Your task to perform on an android device: turn on wifi Image 0: 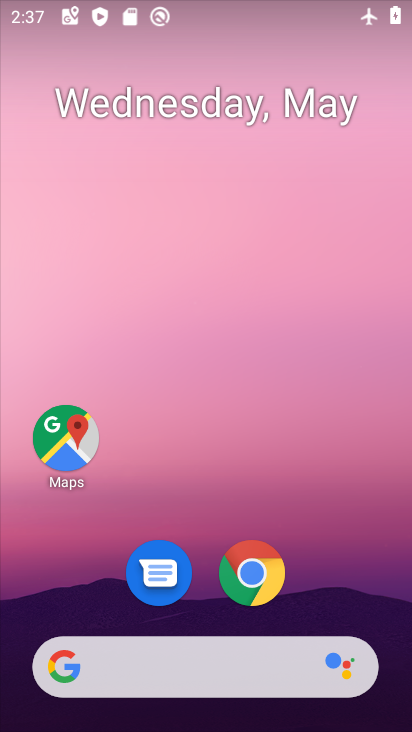
Step 0: drag from (303, 576) to (311, 60)
Your task to perform on an android device: turn on wifi Image 1: 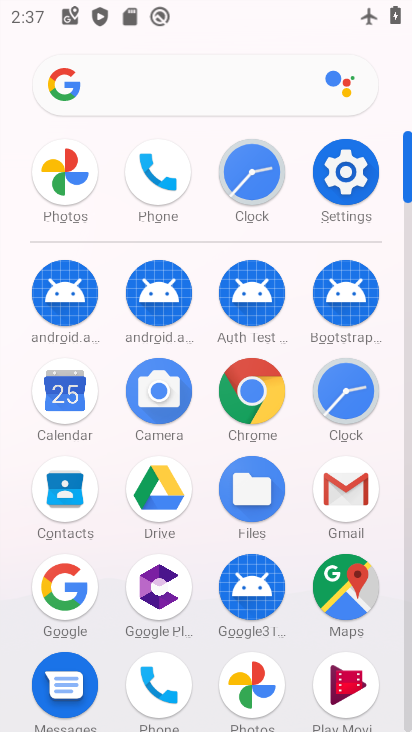
Step 1: click (341, 154)
Your task to perform on an android device: turn on wifi Image 2: 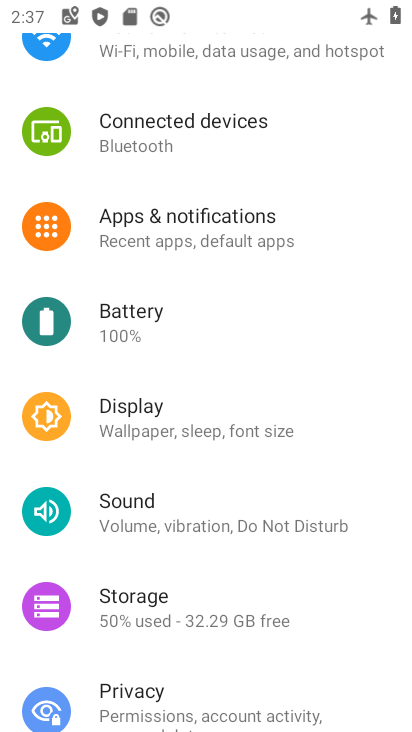
Step 2: drag from (155, 139) to (271, 590)
Your task to perform on an android device: turn on wifi Image 3: 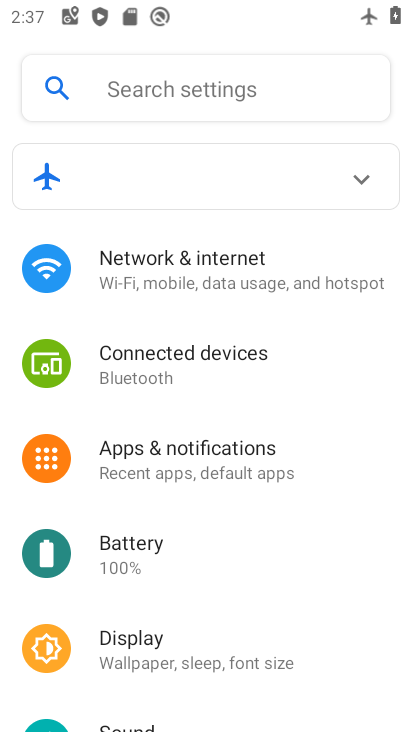
Step 3: click (187, 278)
Your task to perform on an android device: turn on wifi Image 4: 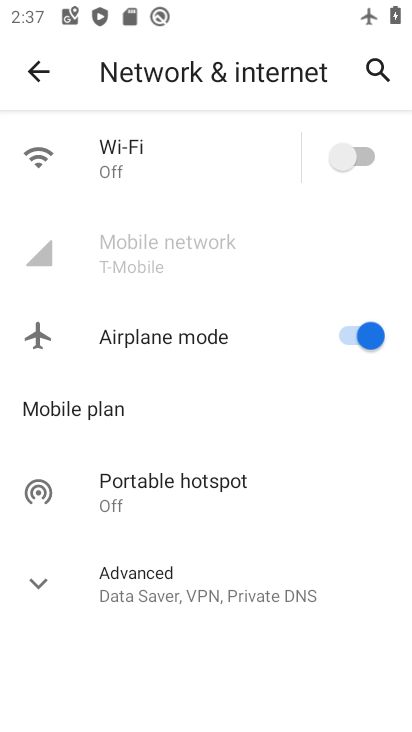
Step 4: click (345, 164)
Your task to perform on an android device: turn on wifi Image 5: 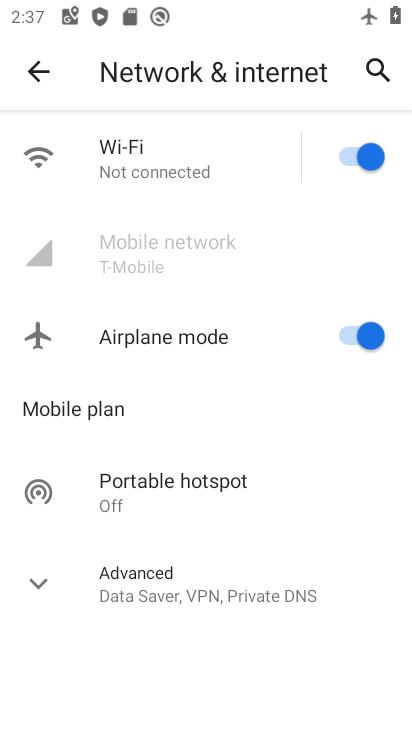
Step 5: task complete